Your task to perform on an android device: turn vacation reply on in the gmail app Image 0: 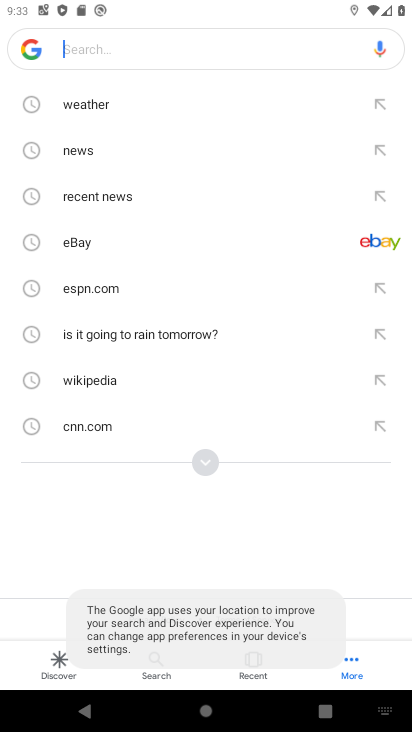
Step 0: press back button
Your task to perform on an android device: turn vacation reply on in the gmail app Image 1: 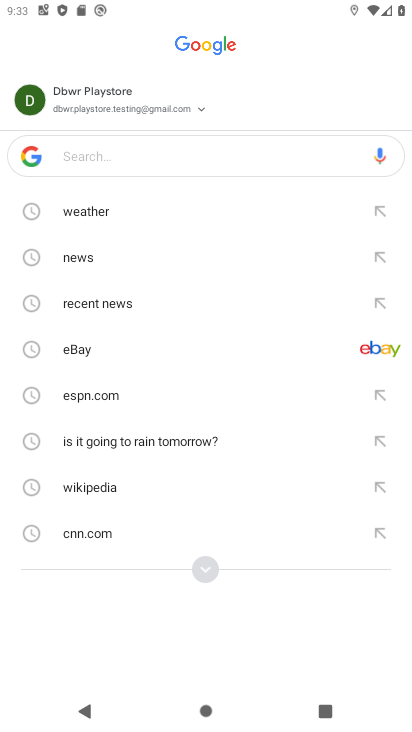
Step 1: press home button
Your task to perform on an android device: turn vacation reply on in the gmail app Image 2: 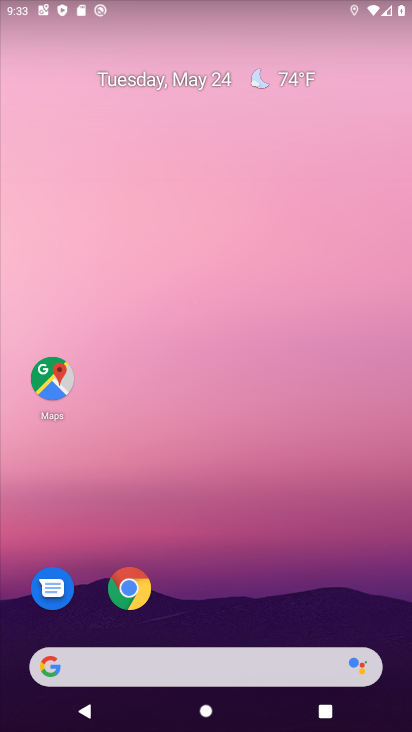
Step 2: drag from (233, 558) to (209, 29)
Your task to perform on an android device: turn vacation reply on in the gmail app Image 3: 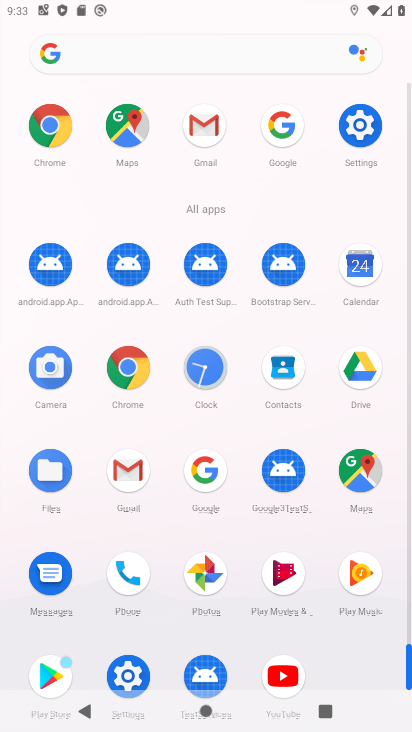
Step 3: drag from (5, 552) to (3, 278)
Your task to perform on an android device: turn vacation reply on in the gmail app Image 4: 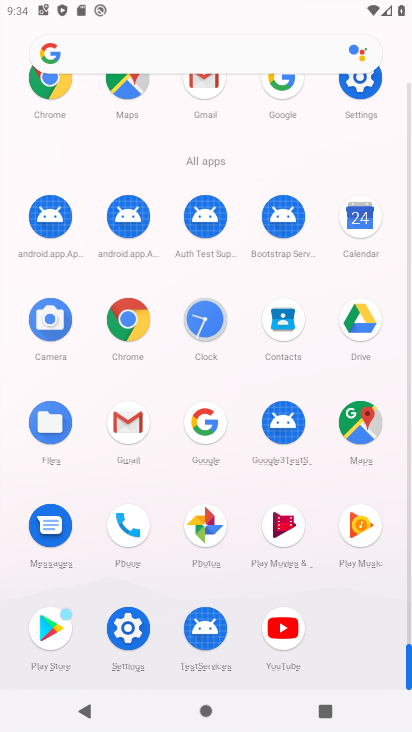
Step 4: click (127, 418)
Your task to perform on an android device: turn vacation reply on in the gmail app Image 5: 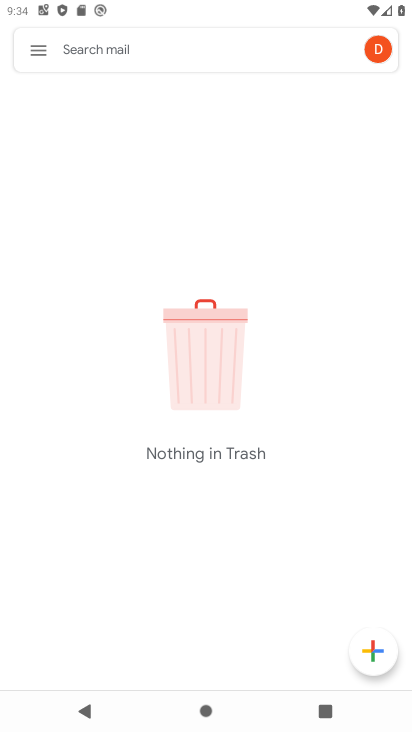
Step 5: click (31, 49)
Your task to perform on an android device: turn vacation reply on in the gmail app Image 6: 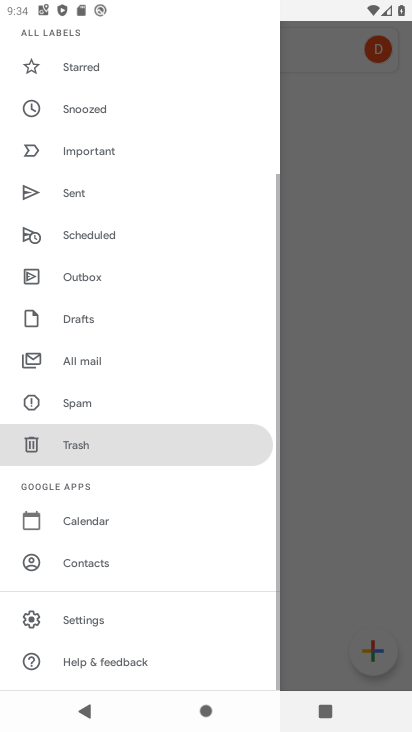
Step 6: drag from (171, 540) to (158, 177)
Your task to perform on an android device: turn vacation reply on in the gmail app Image 7: 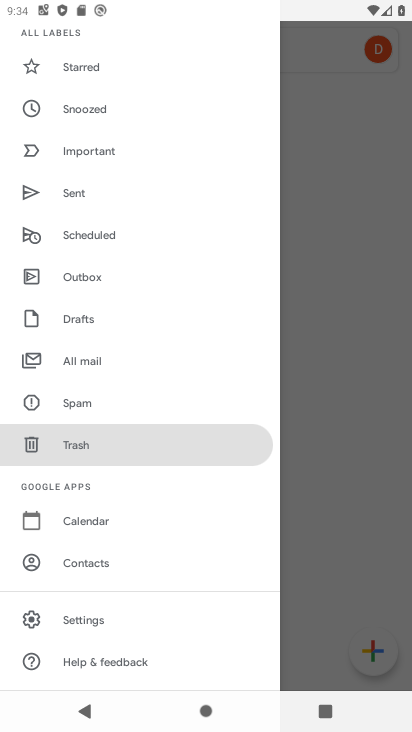
Step 7: click (75, 623)
Your task to perform on an android device: turn vacation reply on in the gmail app Image 8: 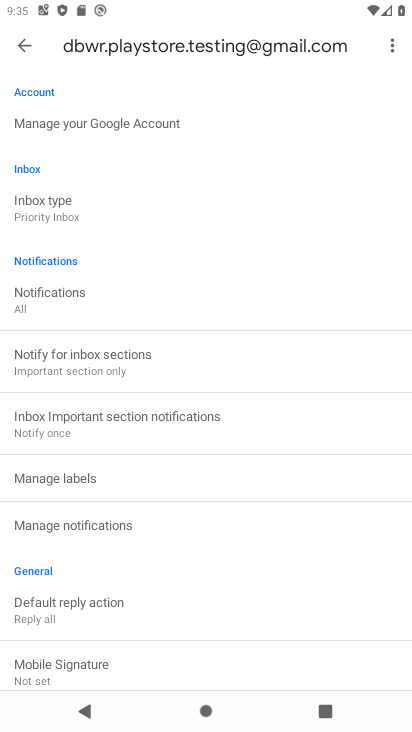
Step 8: drag from (205, 599) to (187, 219)
Your task to perform on an android device: turn vacation reply on in the gmail app Image 9: 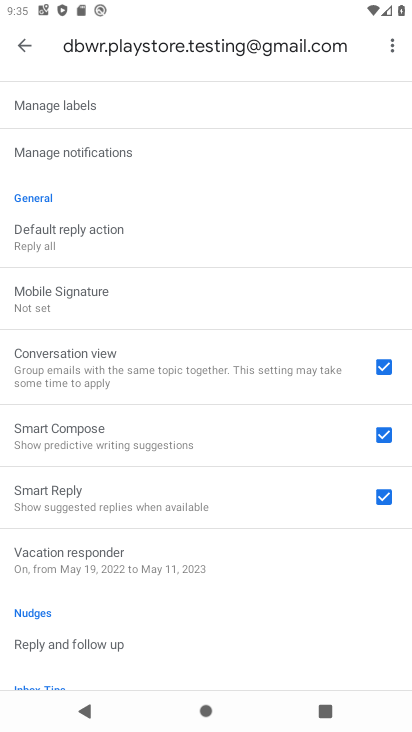
Step 9: drag from (176, 609) to (166, 329)
Your task to perform on an android device: turn vacation reply on in the gmail app Image 10: 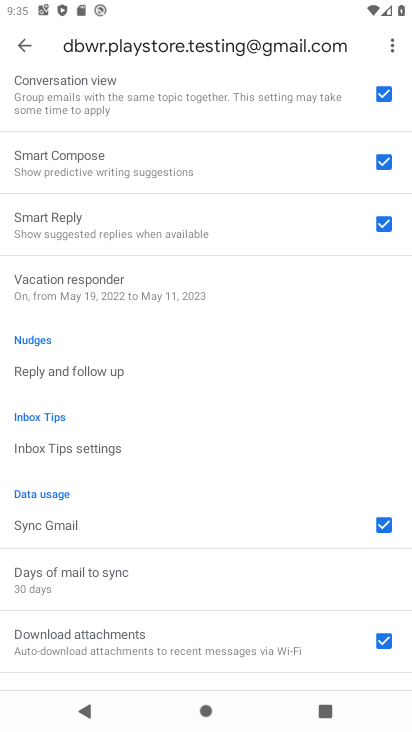
Step 10: click (117, 290)
Your task to perform on an android device: turn vacation reply on in the gmail app Image 11: 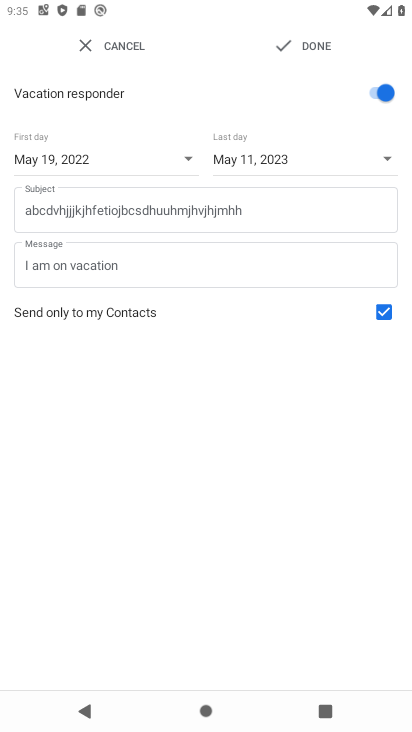
Step 11: click (312, 41)
Your task to perform on an android device: turn vacation reply on in the gmail app Image 12: 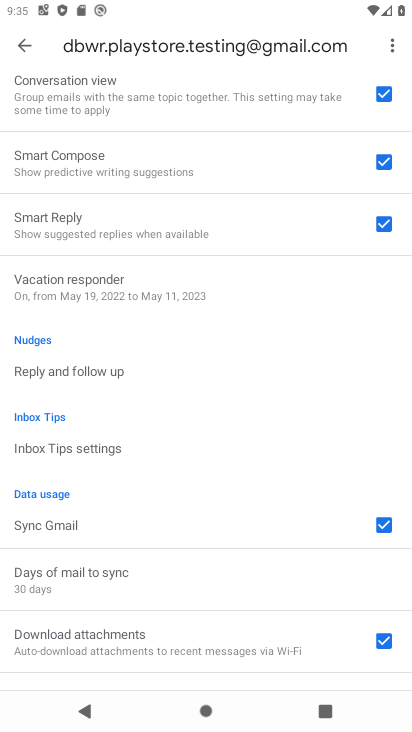
Step 12: task complete